Your task to perform on an android device: What's the weather today? Image 0: 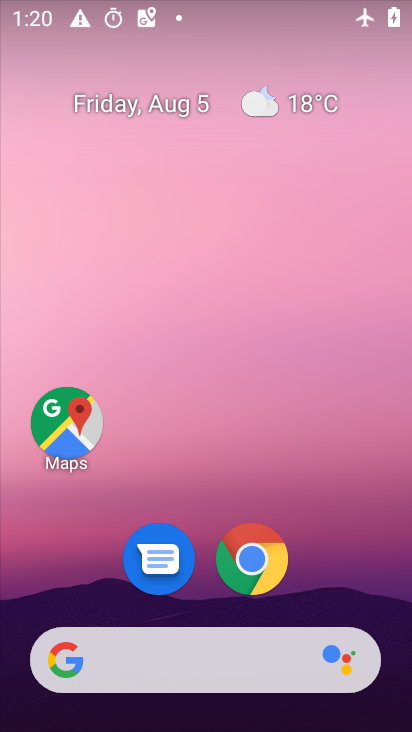
Step 0: click (135, 640)
Your task to perform on an android device: What's the weather today? Image 1: 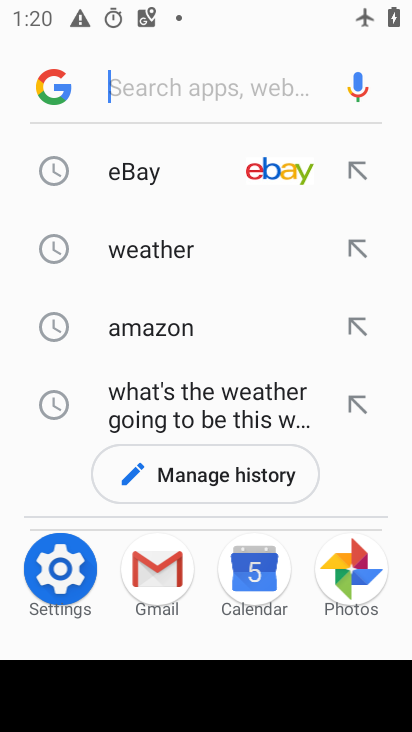
Step 1: type "What's the weather today?"
Your task to perform on an android device: What's the weather today? Image 2: 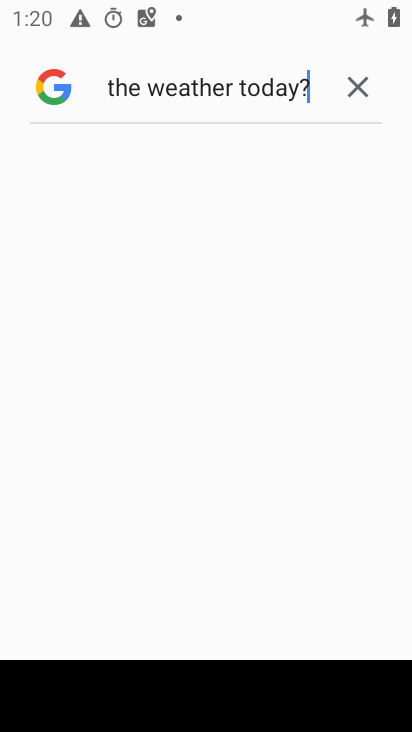
Step 2: type ""
Your task to perform on an android device: What's the weather today? Image 3: 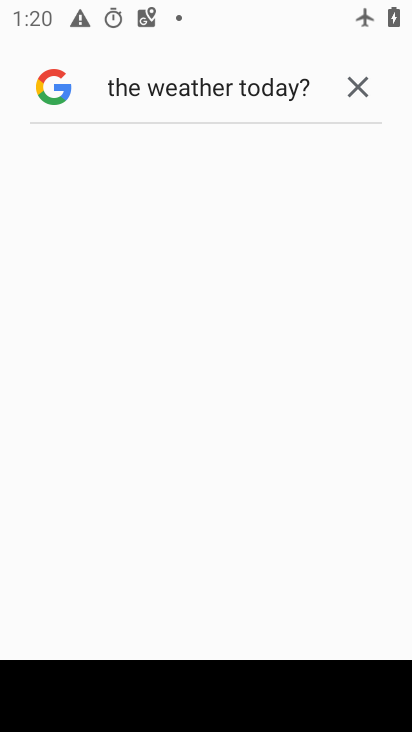
Step 3: type ""
Your task to perform on an android device: What's the weather today? Image 4: 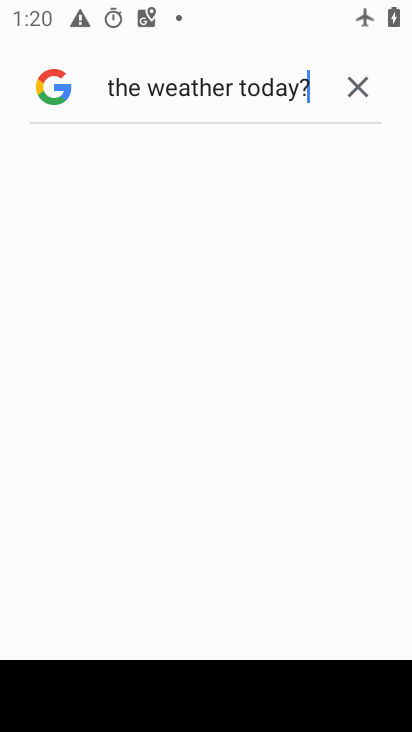
Step 4: task complete